Your task to perform on an android device: delete a single message in the gmail app Image 0: 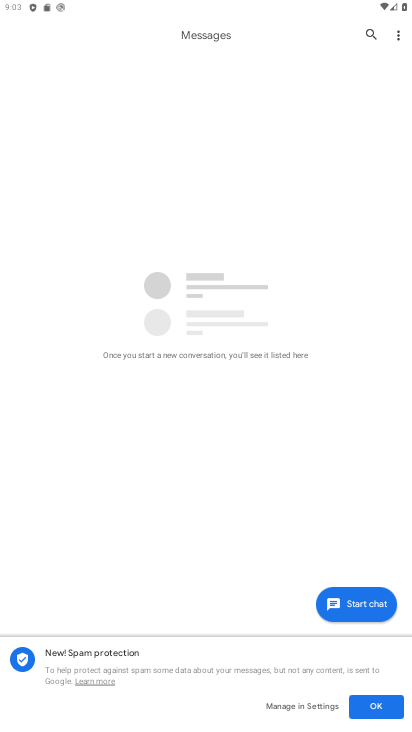
Step 0: press home button
Your task to perform on an android device: delete a single message in the gmail app Image 1: 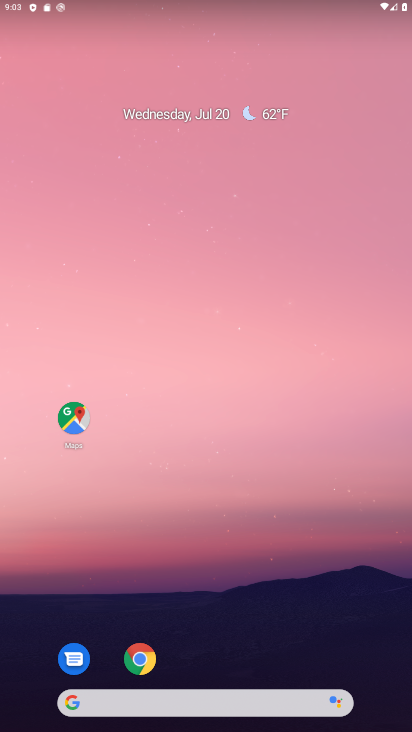
Step 1: drag from (199, 683) to (145, 110)
Your task to perform on an android device: delete a single message in the gmail app Image 2: 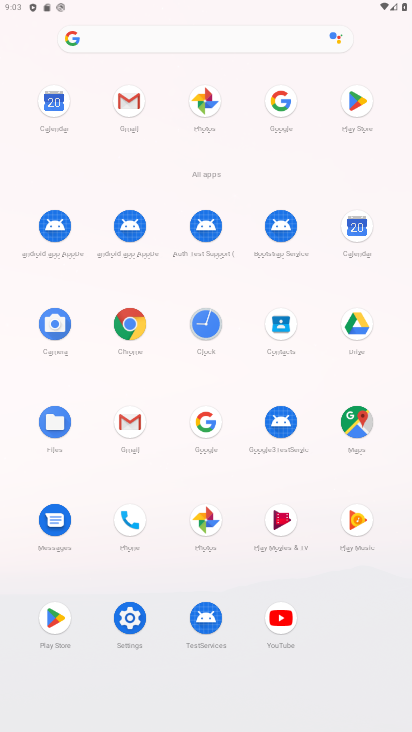
Step 2: click (134, 427)
Your task to perform on an android device: delete a single message in the gmail app Image 3: 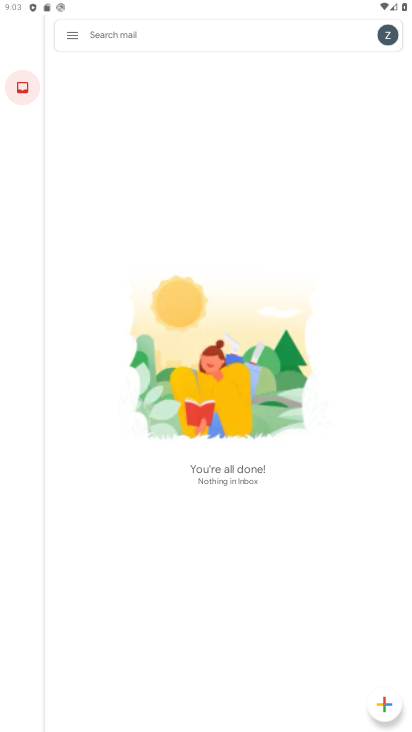
Step 3: task complete